Your task to perform on an android device: Show me popular games on the Play Store Image 0: 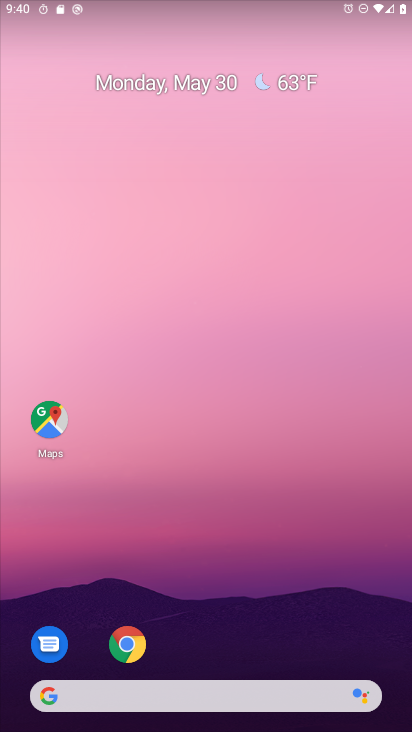
Step 0: drag from (227, 643) to (295, 38)
Your task to perform on an android device: Show me popular games on the Play Store Image 1: 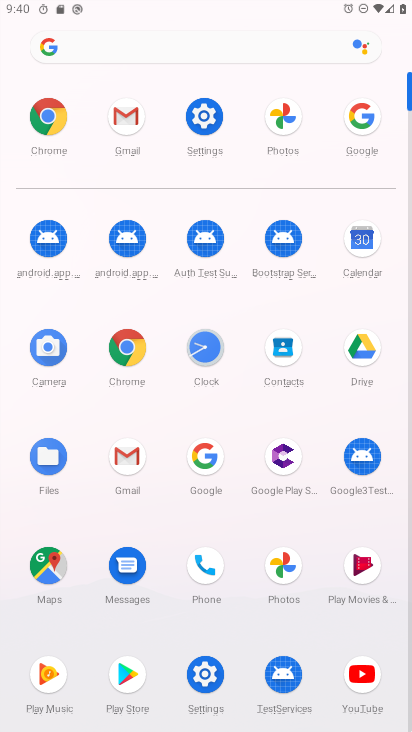
Step 1: click (127, 677)
Your task to perform on an android device: Show me popular games on the Play Store Image 2: 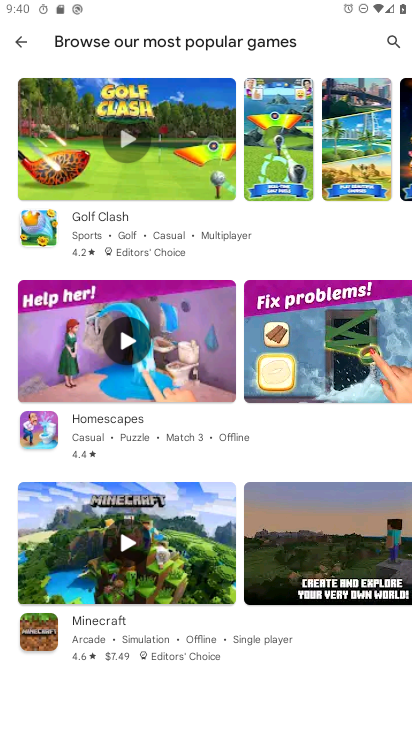
Step 2: task complete